Your task to perform on an android device: open app "Messenger Lite" Image 0: 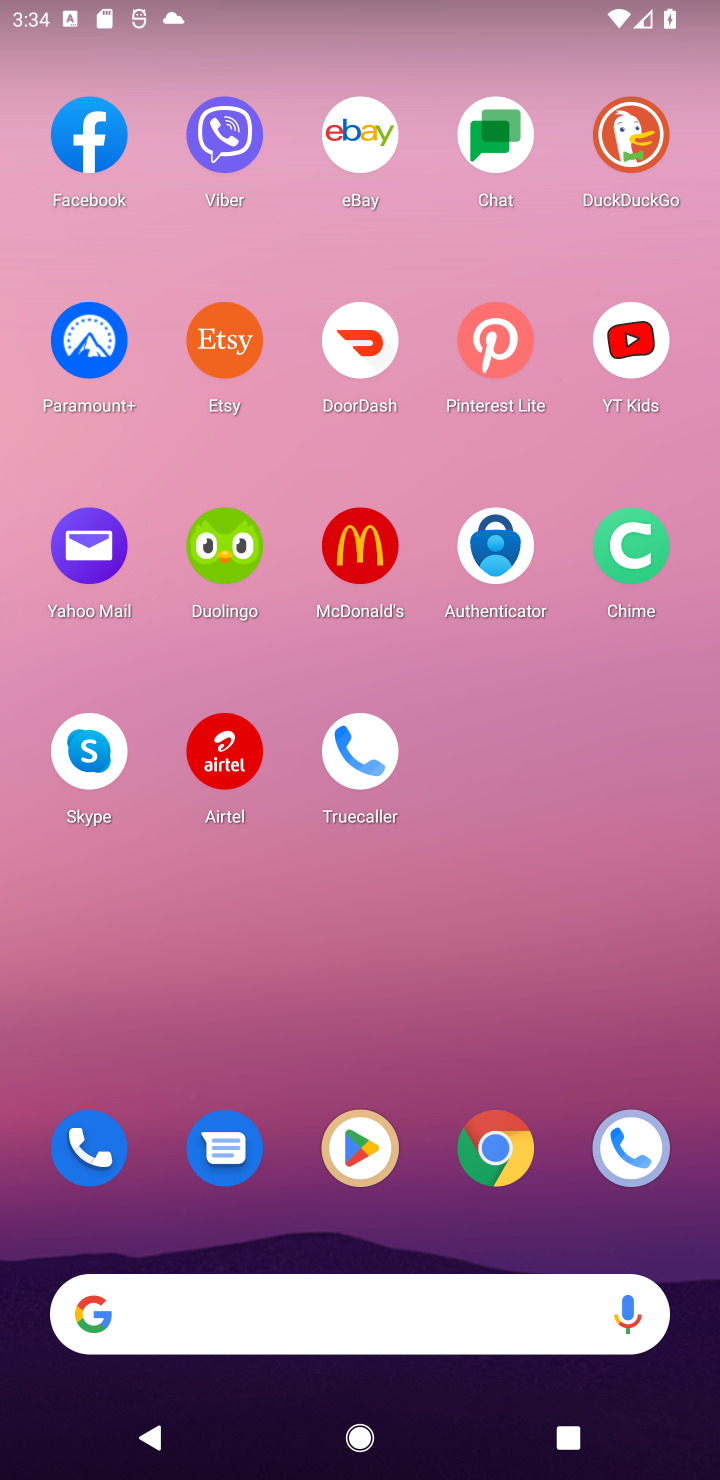
Step 0: click (338, 1148)
Your task to perform on an android device: open app "Messenger Lite" Image 1: 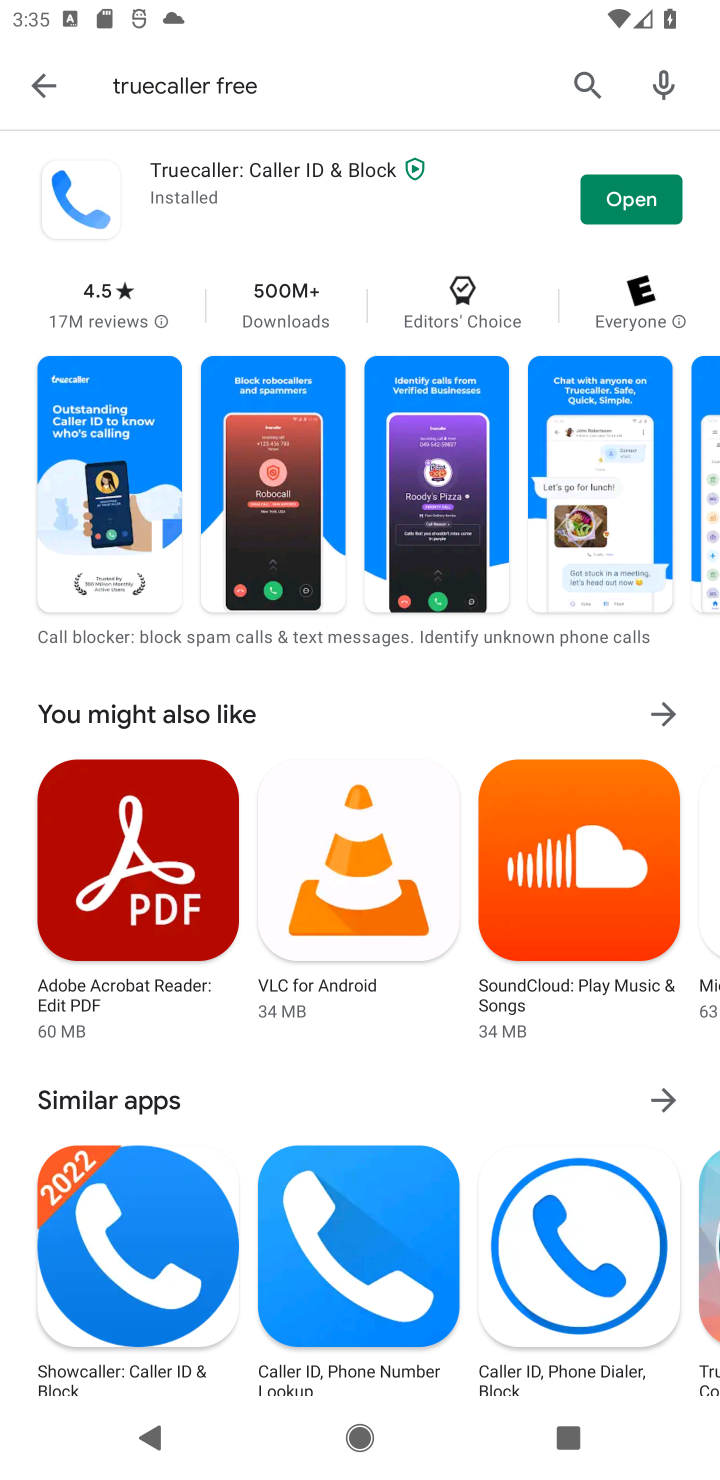
Step 1: click (594, 94)
Your task to perform on an android device: open app "Messenger Lite" Image 2: 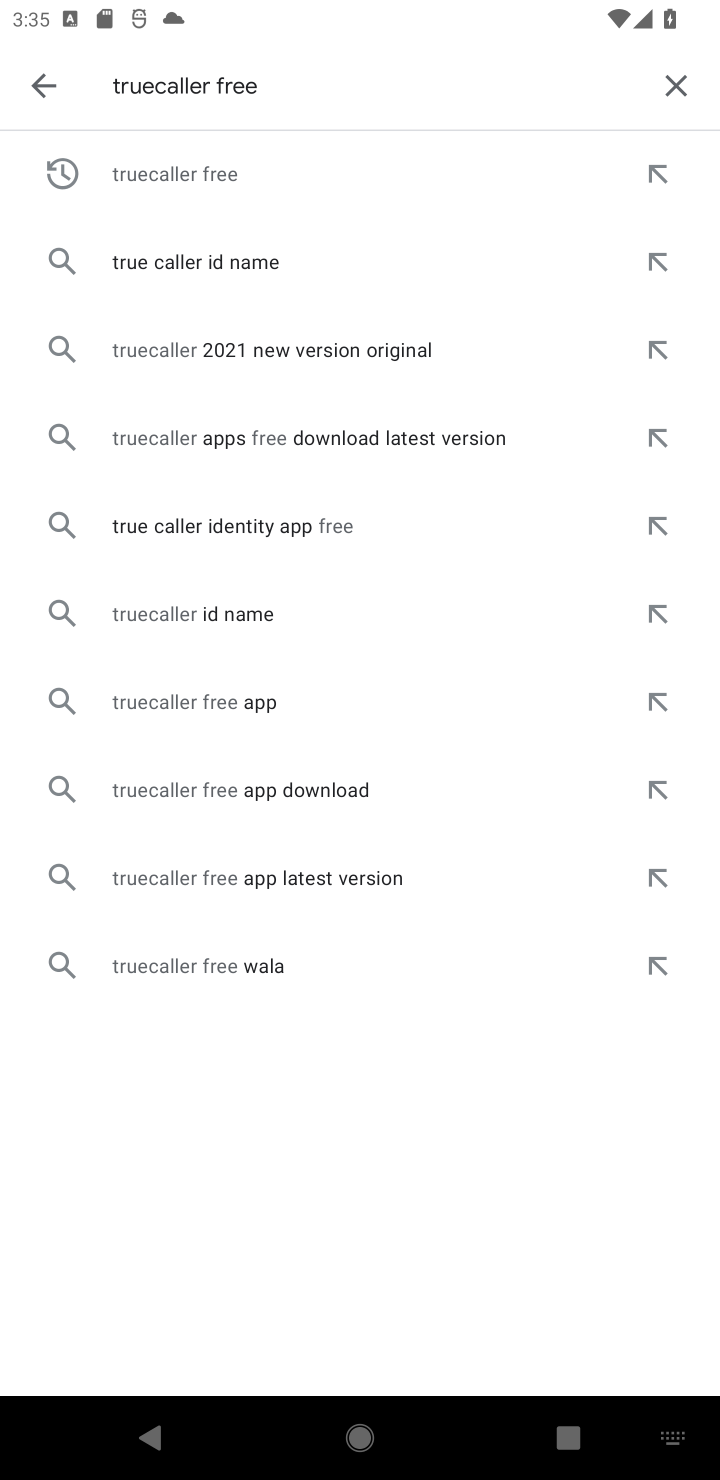
Step 2: click (672, 94)
Your task to perform on an android device: open app "Messenger Lite" Image 3: 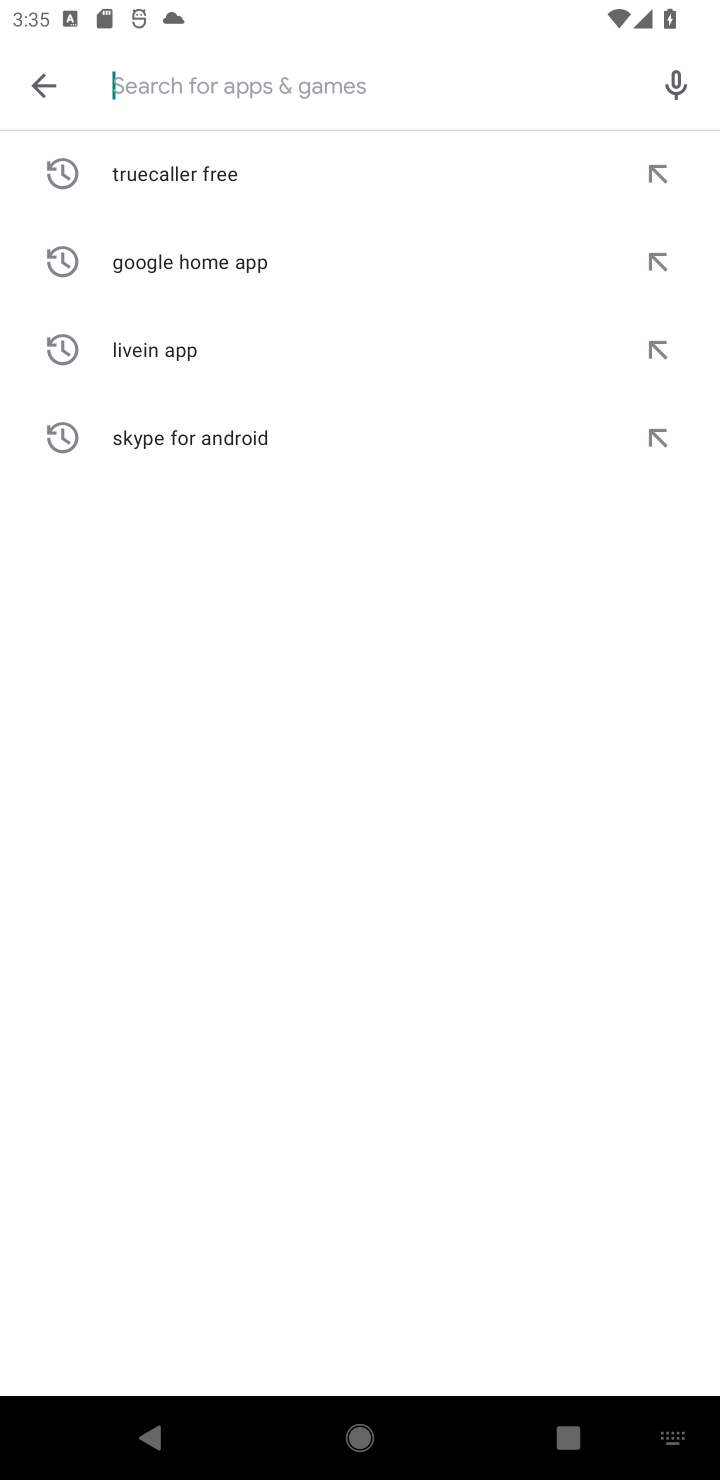
Step 3: click (373, 87)
Your task to perform on an android device: open app "Messenger Lite" Image 4: 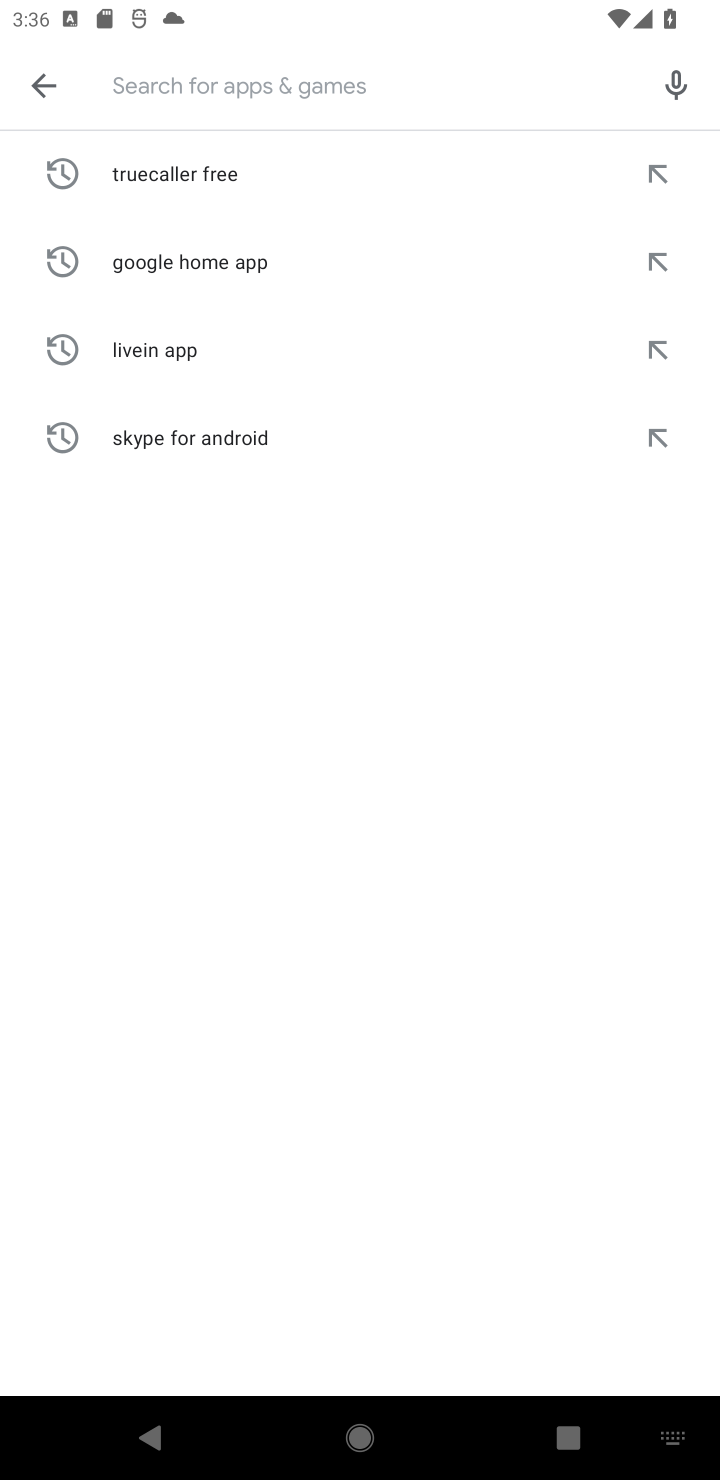
Step 4: click (344, 78)
Your task to perform on an android device: open app "Messenger Lite" Image 5: 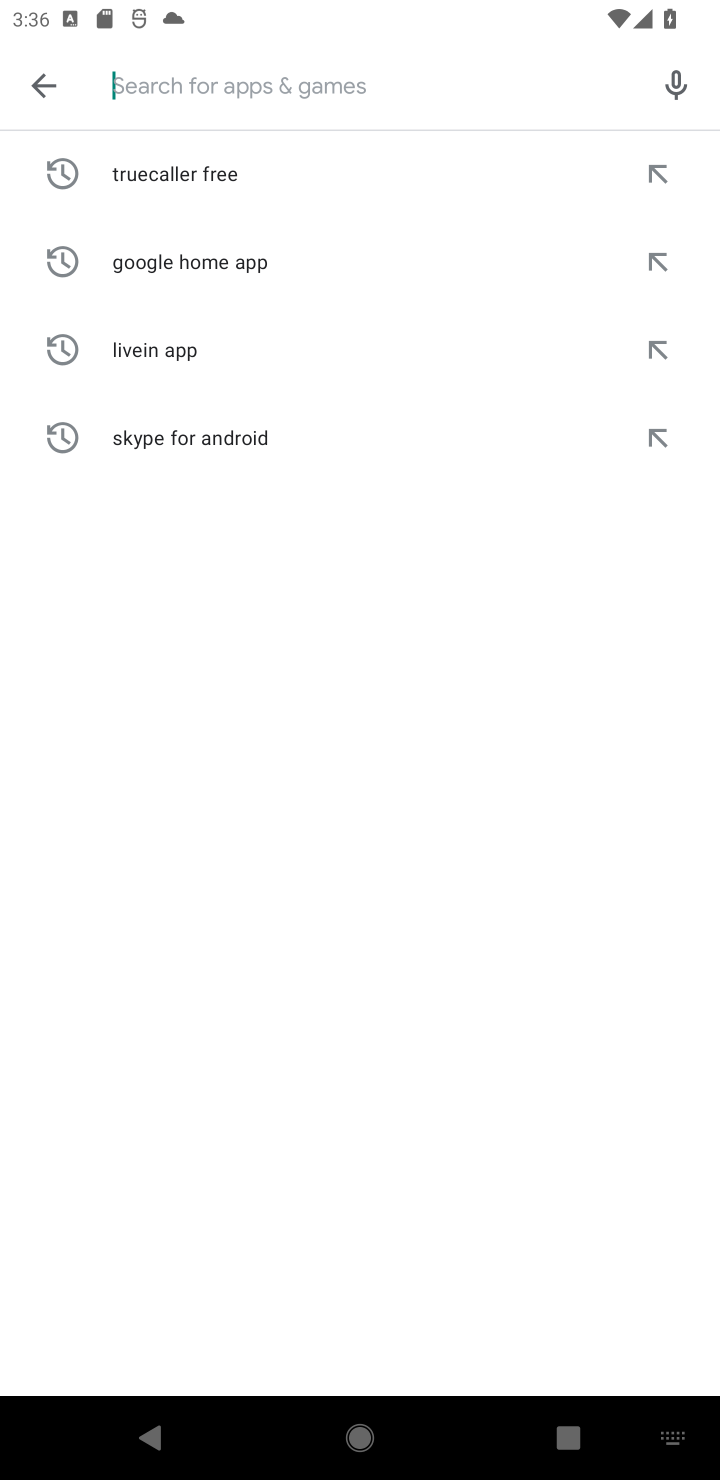
Step 5: type "Messenger lite "
Your task to perform on an android device: open app "Messenger Lite" Image 6: 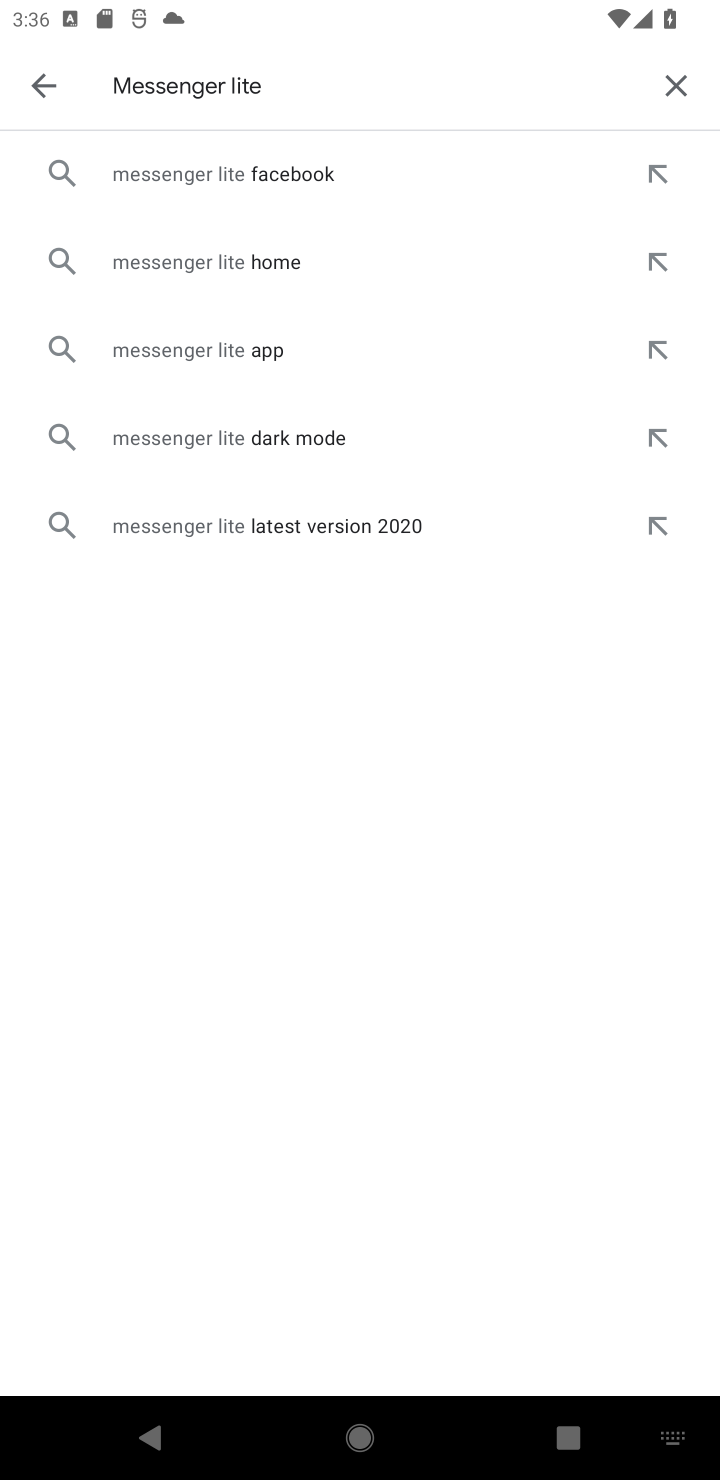
Step 6: click (223, 355)
Your task to perform on an android device: open app "Messenger Lite" Image 7: 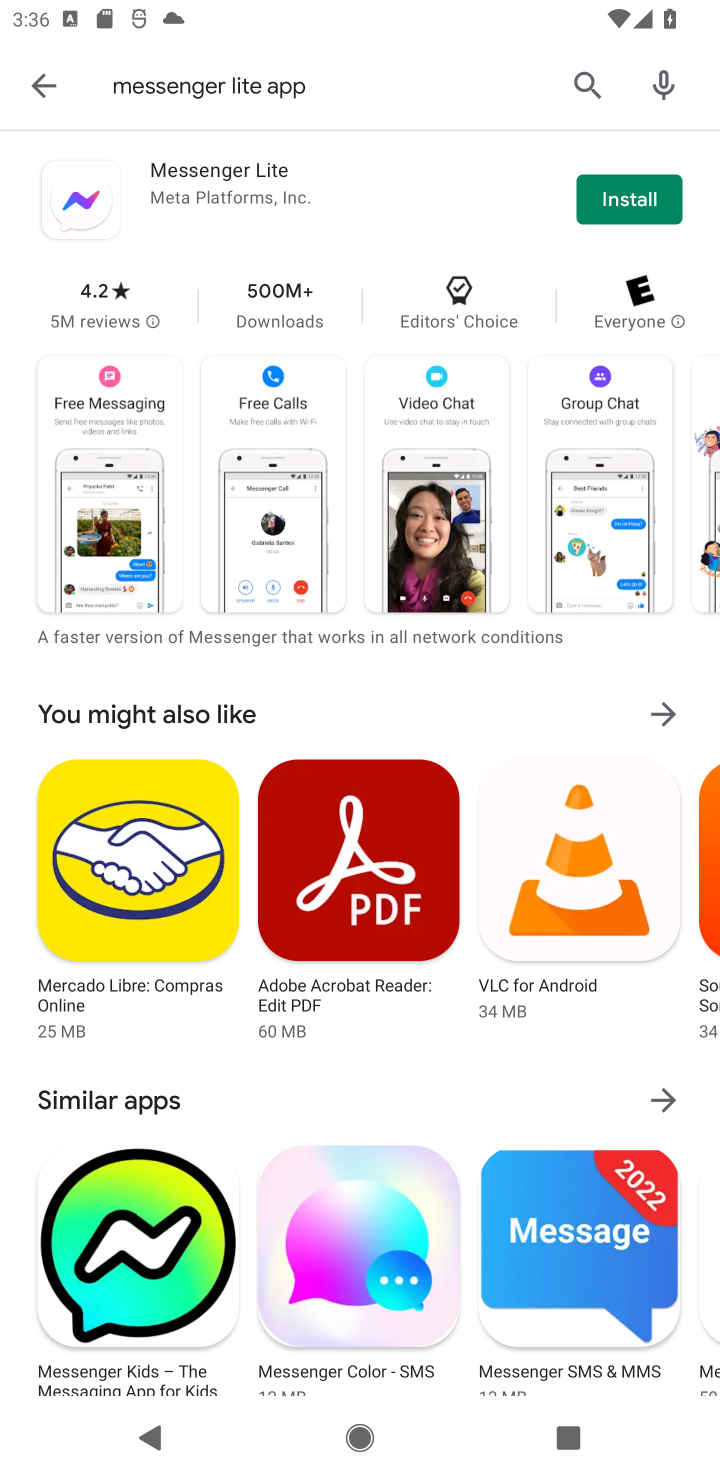
Step 7: click (612, 213)
Your task to perform on an android device: open app "Messenger Lite" Image 8: 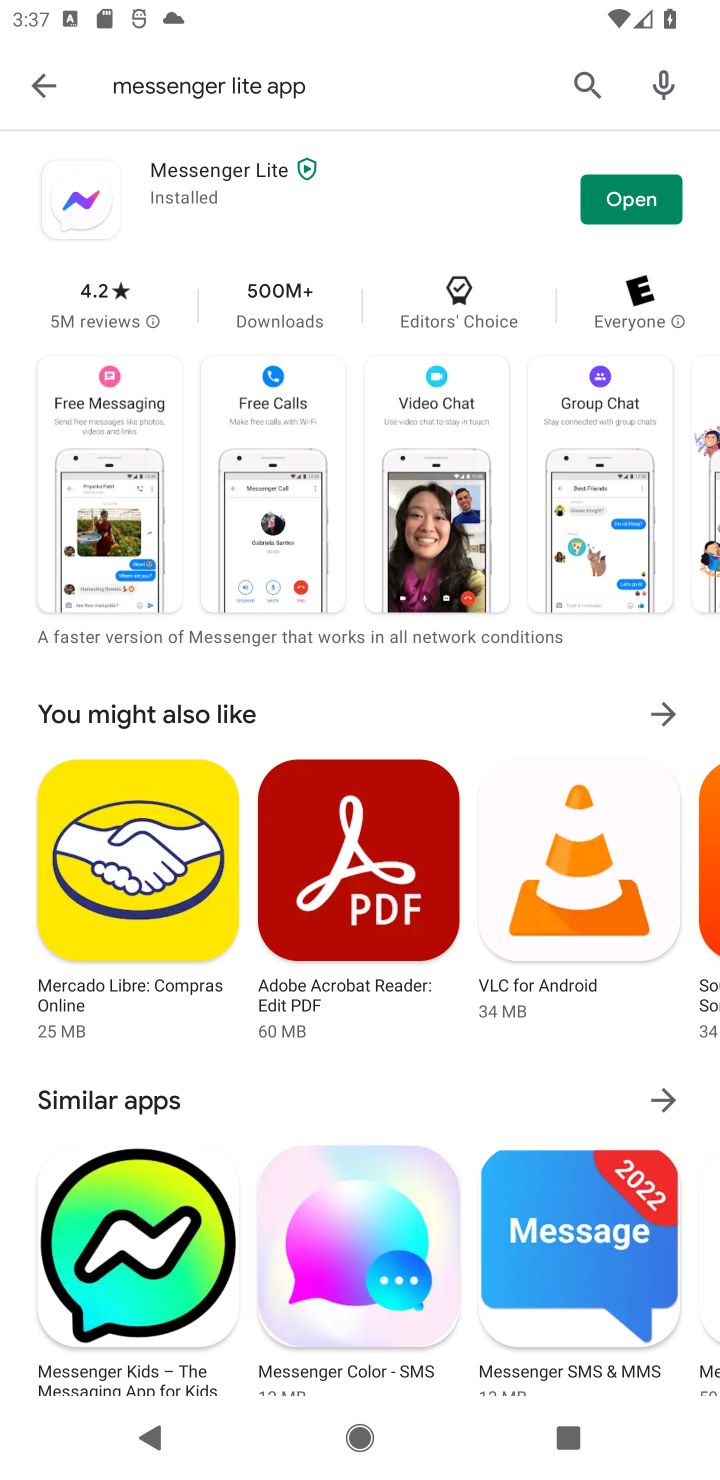
Step 8: click (628, 210)
Your task to perform on an android device: open app "Messenger Lite" Image 9: 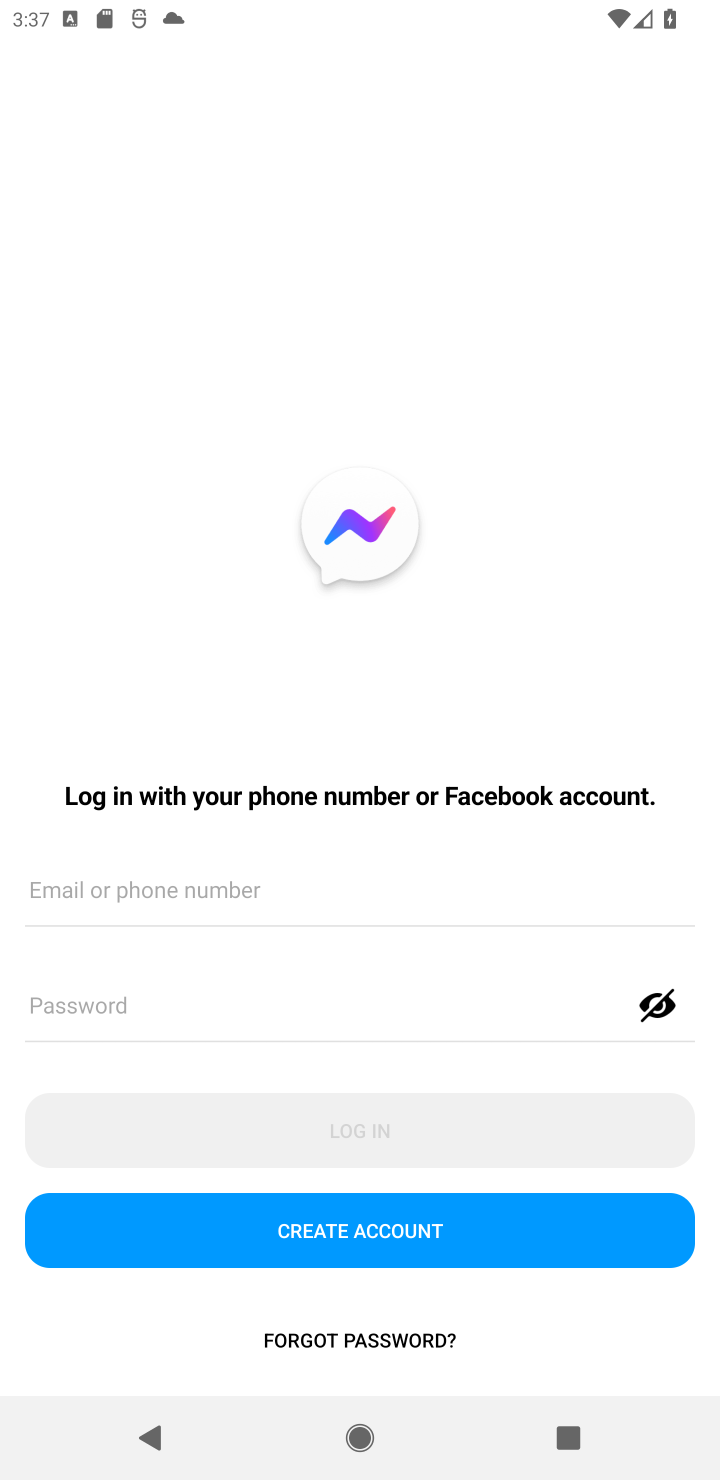
Step 9: task complete